Your task to perform on an android device: Go to Google maps Image 0: 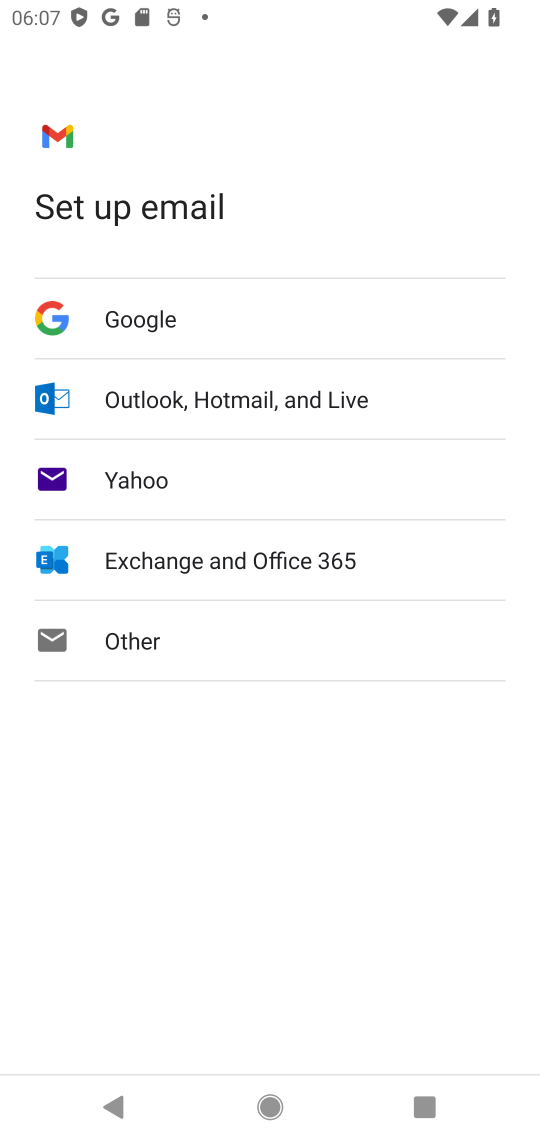
Step 0: press home button
Your task to perform on an android device: Go to Google maps Image 1: 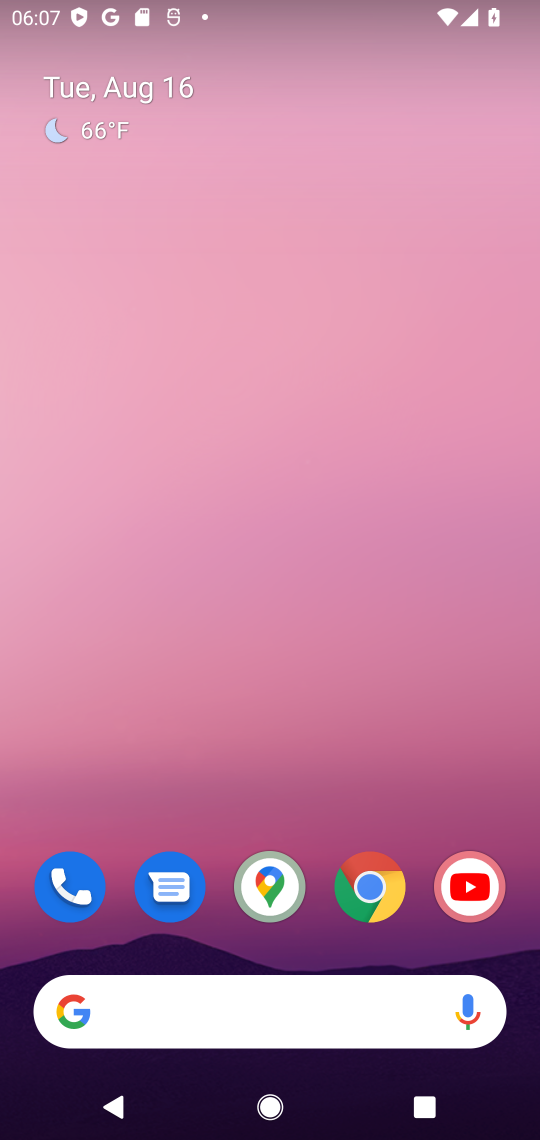
Step 1: drag from (306, 777) to (327, 93)
Your task to perform on an android device: Go to Google maps Image 2: 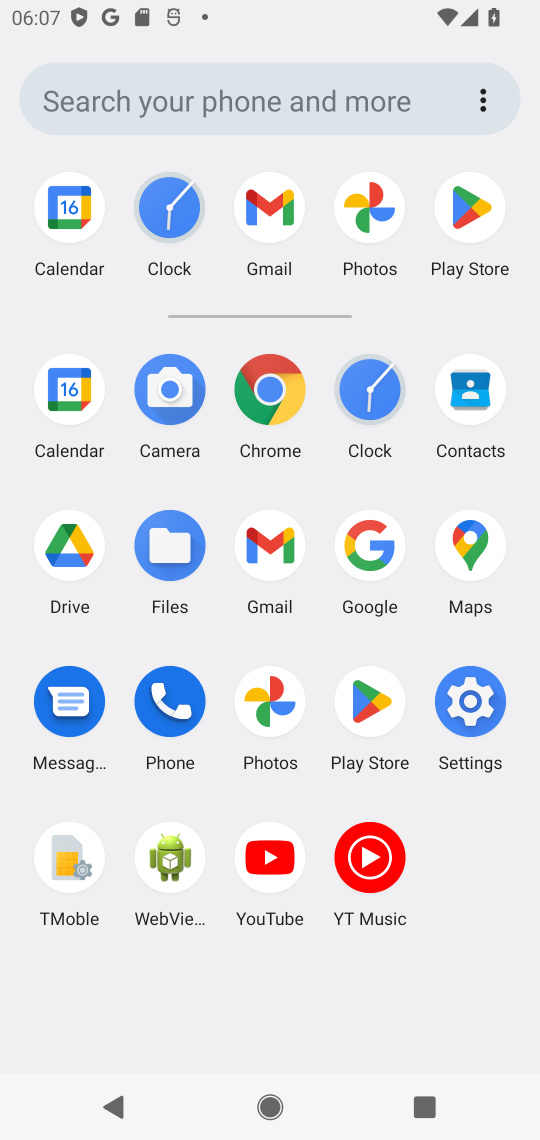
Step 2: click (470, 543)
Your task to perform on an android device: Go to Google maps Image 3: 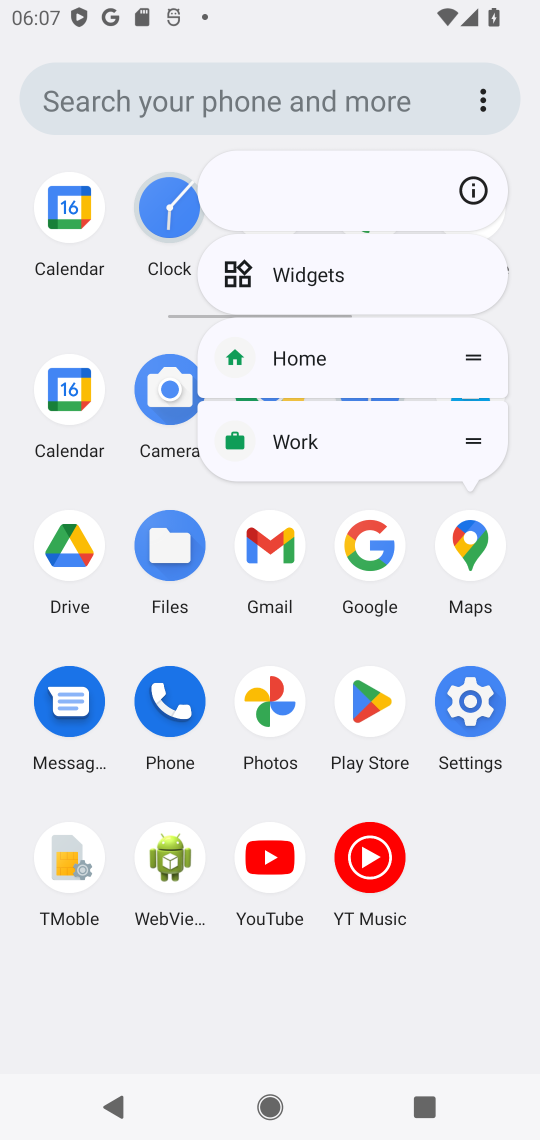
Step 3: click (472, 538)
Your task to perform on an android device: Go to Google maps Image 4: 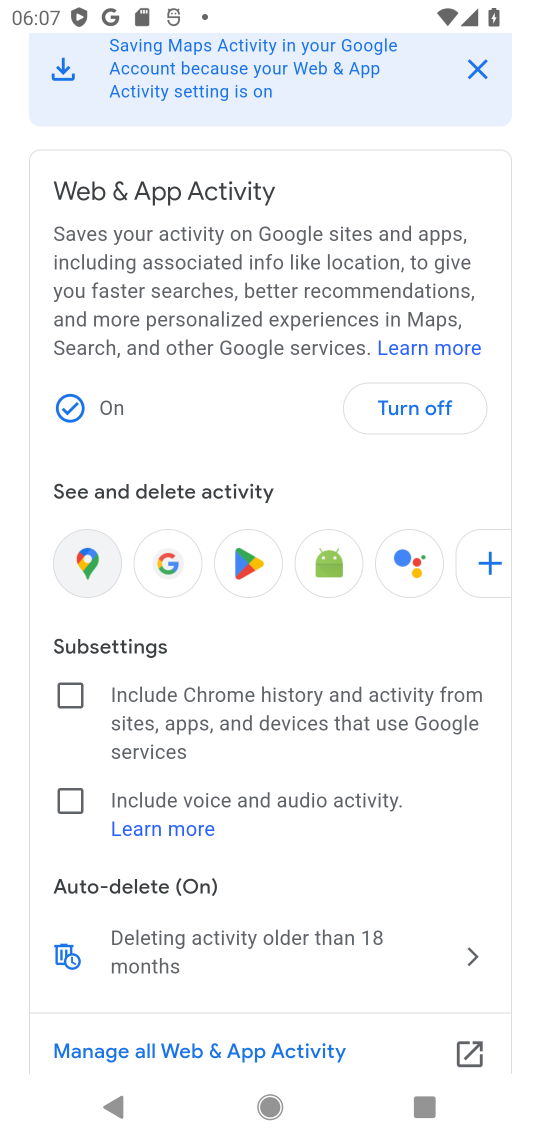
Step 4: task complete